Your task to perform on an android device: toggle show notifications on the lock screen Image 0: 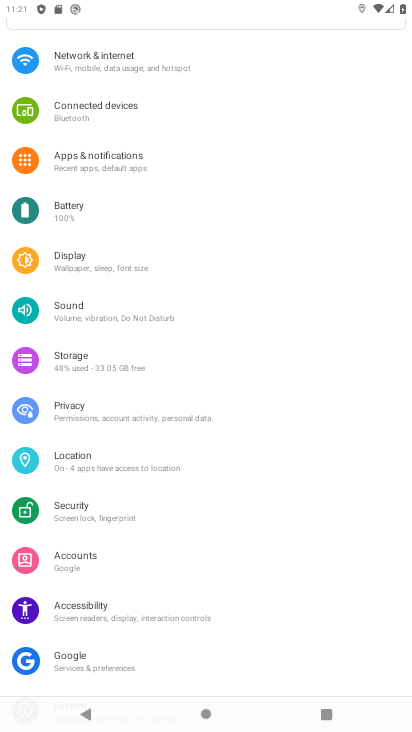
Step 0: press home button
Your task to perform on an android device: toggle show notifications on the lock screen Image 1: 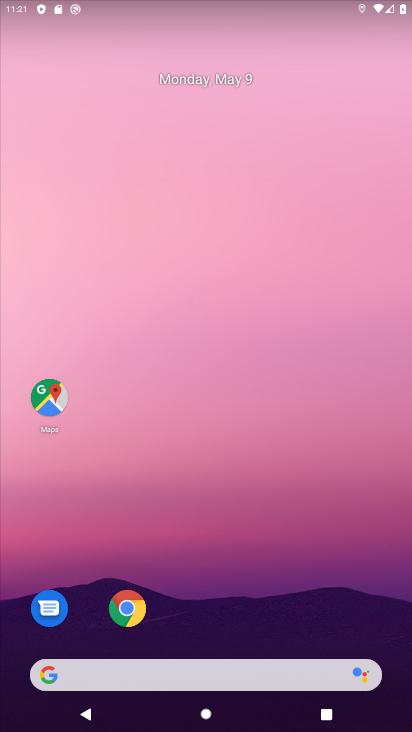
Step 1: drag from (55, 689) to (300, 128)
Your task to perform on an android device: toggle show notifications on the lock screen Image 2: 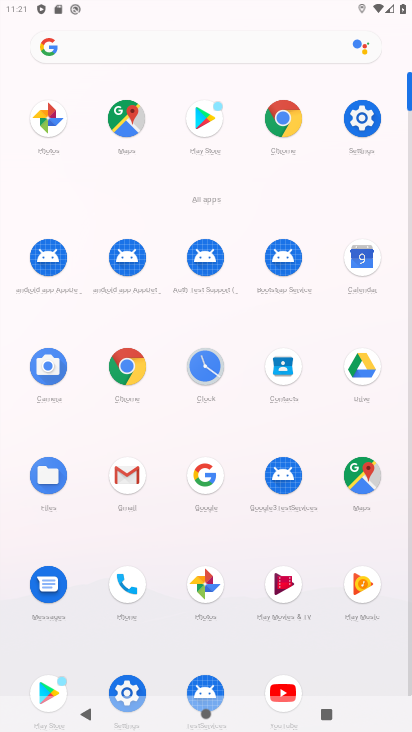
Step 2: click (365, 127)
Your task to perform on an android device: toggle show notifications on the lock screen Image 3: 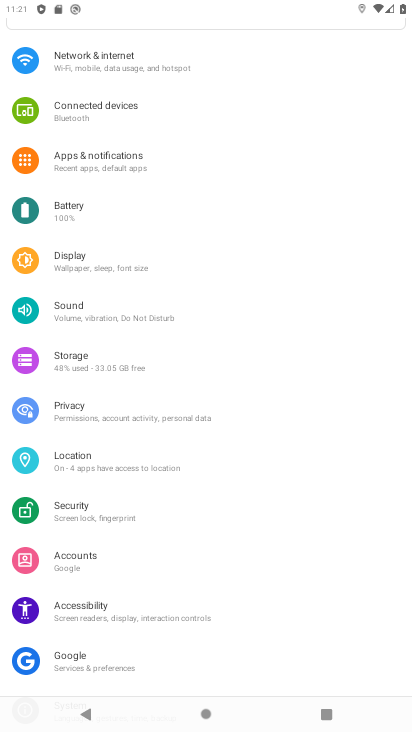
Step 3: click (211, 168)
Your task to perform on an android device: toggle show notifications on the lock screen Image 4: 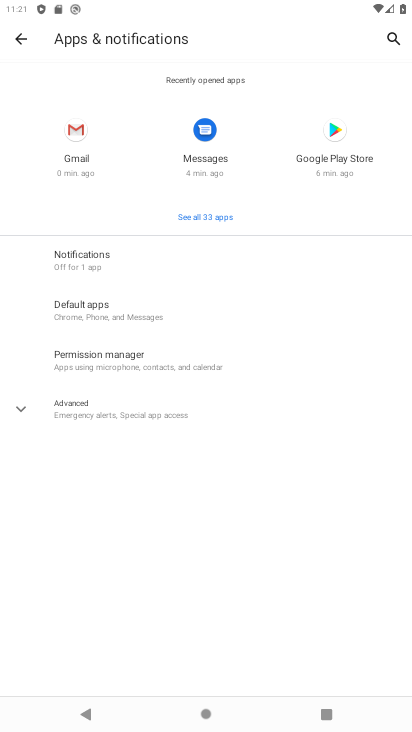
Step 4: click (96, 261)
Your task to perform on an android device: toggle show notifications on the lock screen Image 5: 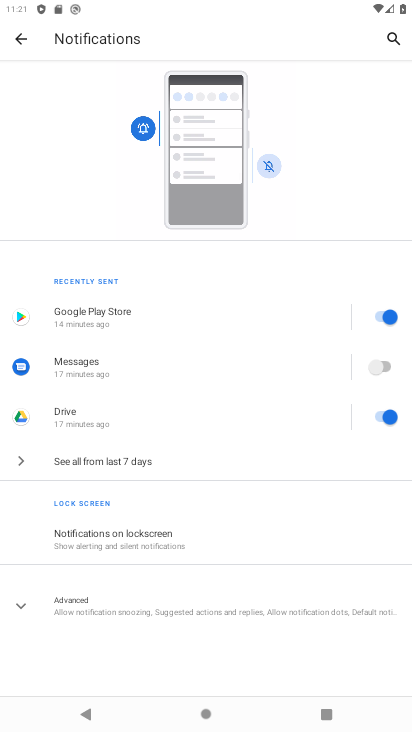
Step 5: click (102, 536)
Your task to perform on an android device: toggle show notifications on the lock screen Image 6: 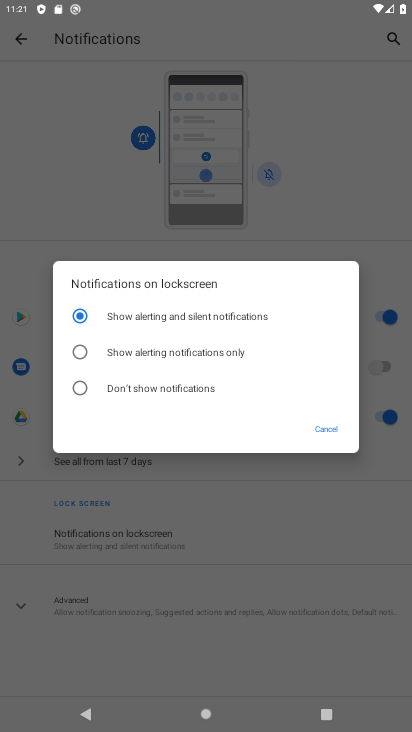
Step 6: click (77, 385)
Your task to perform on an android device: toggle show notifications on the lock screen Image 7: 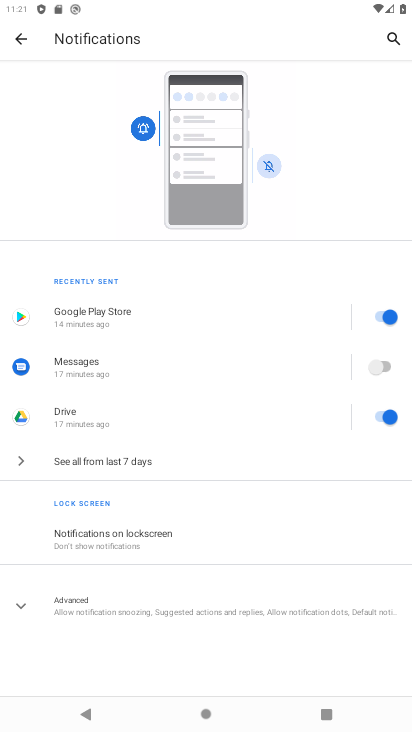
Step 7: task complete